Your task to perform on an android device: turn on improve location accuracy Image 0: 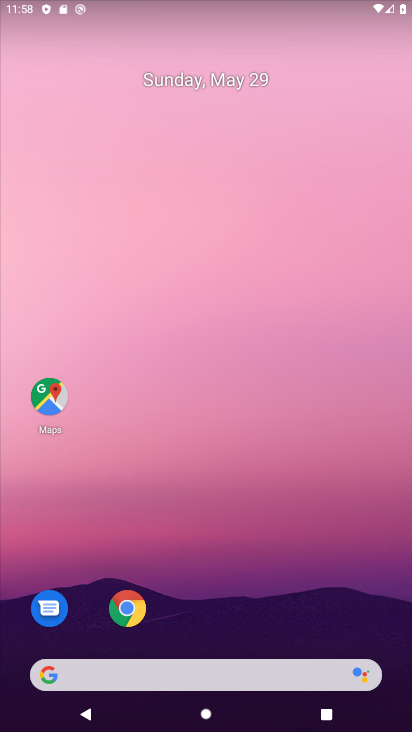
Step 0: drag from (199, 635) to (149, 16)
Your task to perform on an android device: turn on improve location accuracy Image 1: 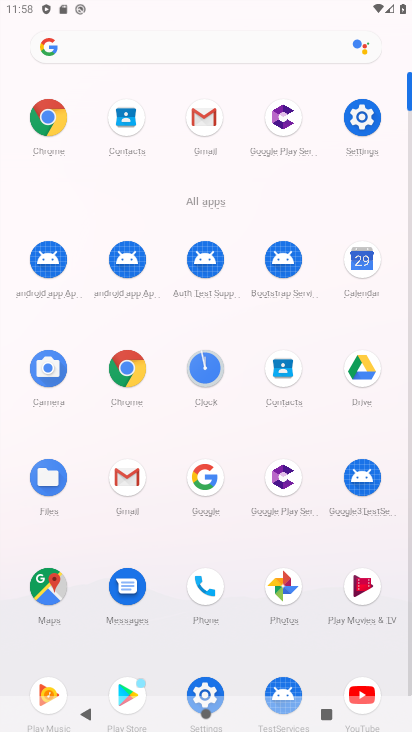
Step 1: drag from (194, 673) to (197, 546)
Your task to perform on an android device: turn on improve location accuracy Image 2: 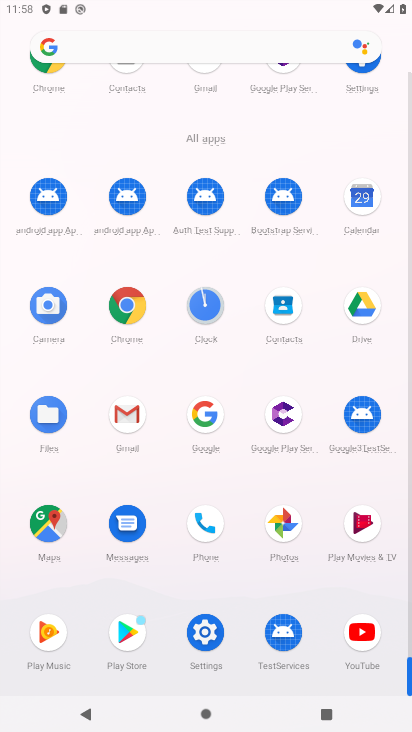
Step 2: click (208, 640)
Your task to perform on an android device: turn on improve location accuracy Image 3: 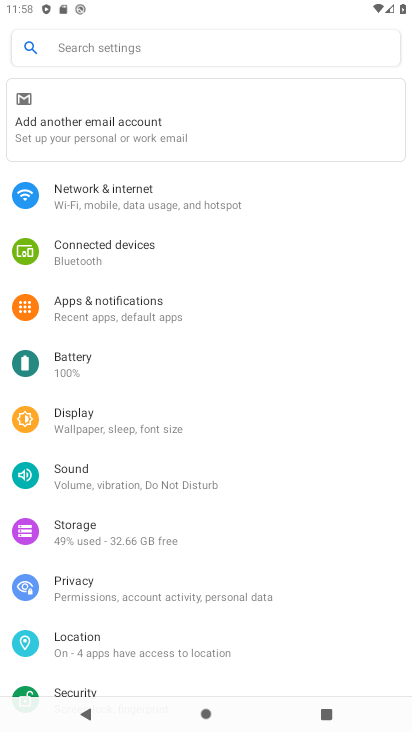
Step 3: click (160, 645)
Your task to perform on an android device: turn on improve location accuracy Image 4: 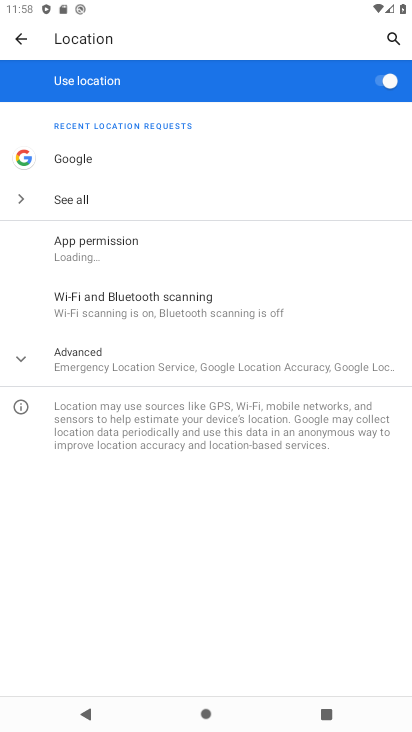
Step 4: click (151, 365)
Your task to perform on an android device: turn on improve location accuracy Image 5: 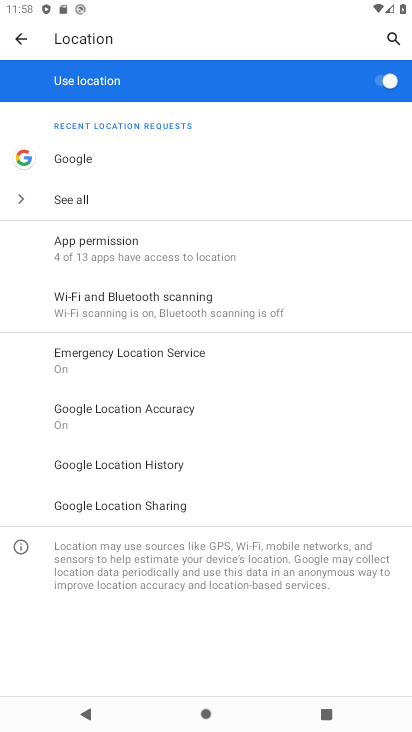
Step 5: click (149, 418)
Your task to perform on an android device: turn on improve location accuracy Image 6: 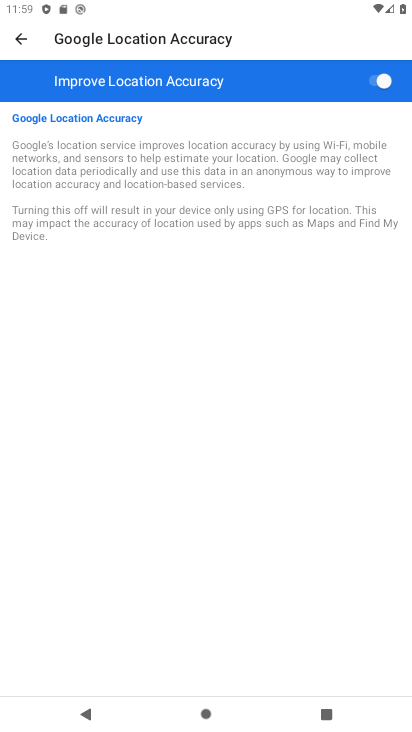
Step 6: task complete